Your task to perform on an android device: Open Wikipedia Image 0: 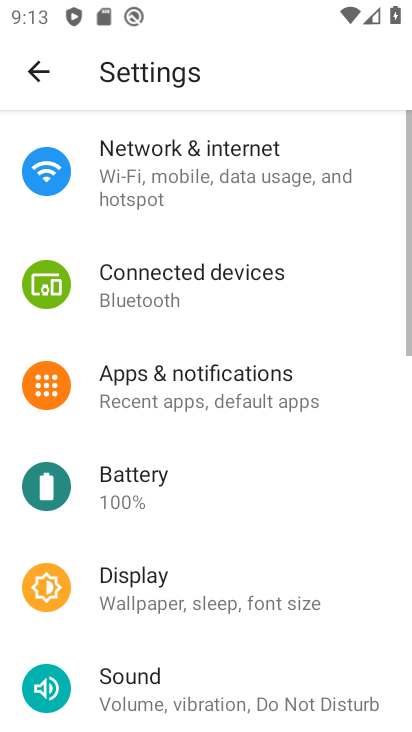
Step 0: press home button
Your task to perform on an android device: Open Wikipedia Image 1: 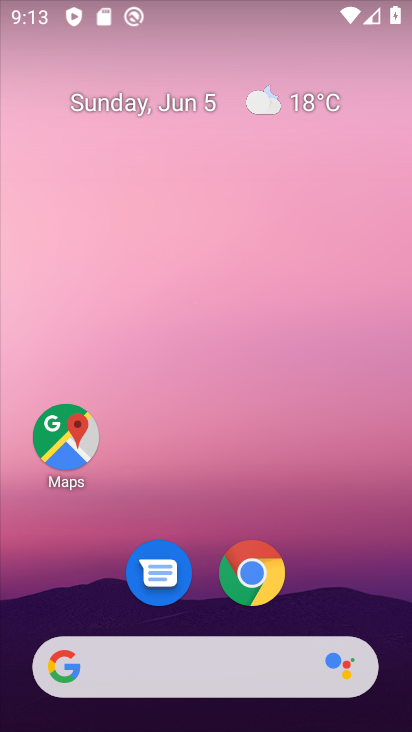
Step 1: click (255, 574)
Your task to perform on an android device: Open Wikipedia Image 2: 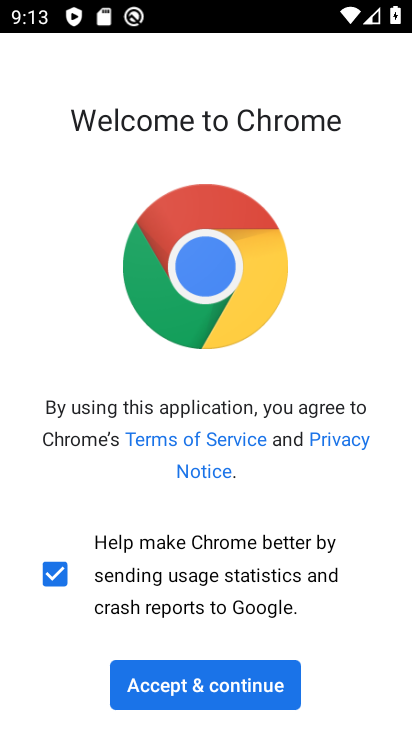
Step 2: click (223, 687)
Your task to perform on an android device: Open Wikipedia Image 3: 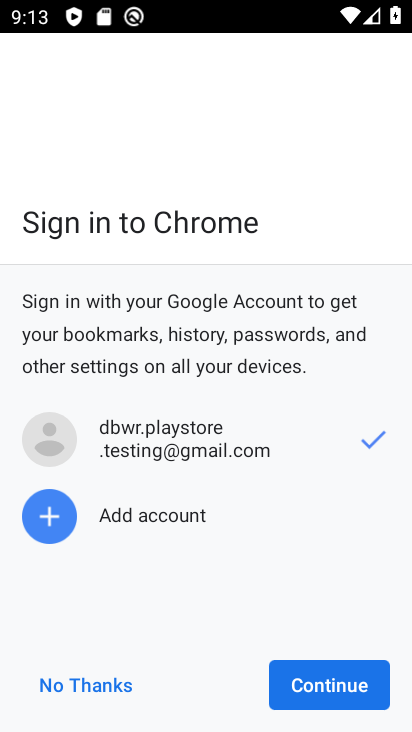
Step 3: click (335, 685)
Your task to perform on an android device: Open Wikipedia Image 4: 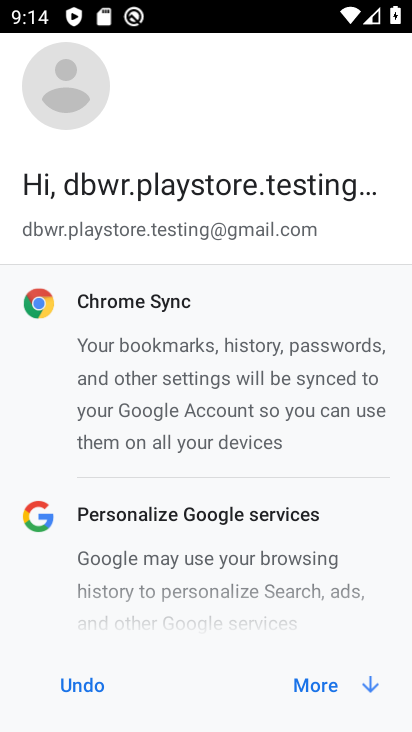
Step 4: click (335, 685)
Your task to perform on an android device: Open Wikipedia Image 5: 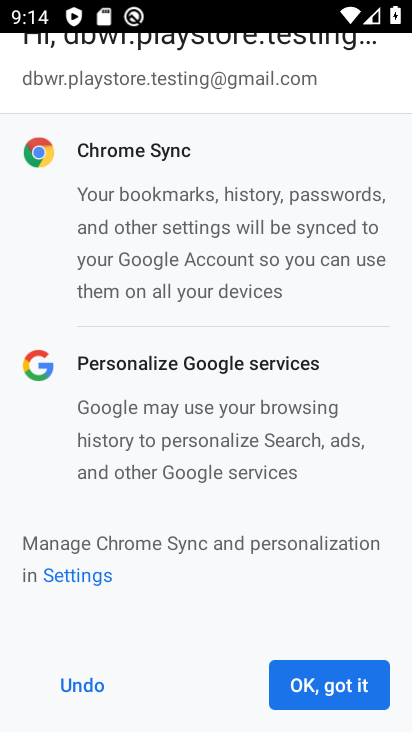
Step 5: click (335, 685)
Your task to perform on an android device: Open Wikipedia Image 6: 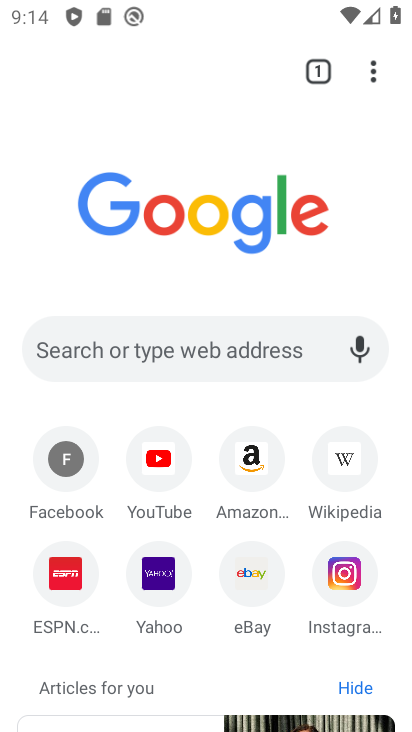
Step 6: click (342, 461)
Your task to perform on an android device: Open Wikipedia Image 7: 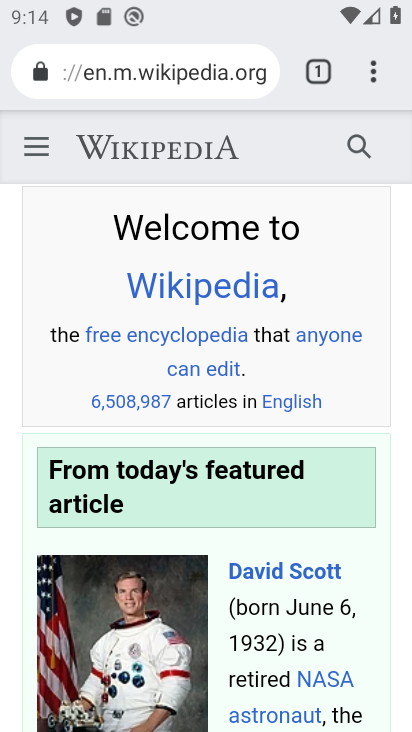
Step 7: task complete